Your task to perform on an android device: Show me the alarms in the clock app Image 0: 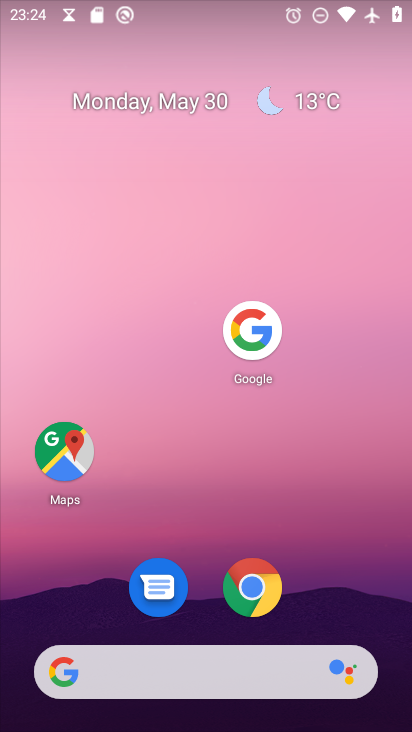
Step 0: press home button
Your task to perform on an android device: Show me the alarms in the clock app Image 1: 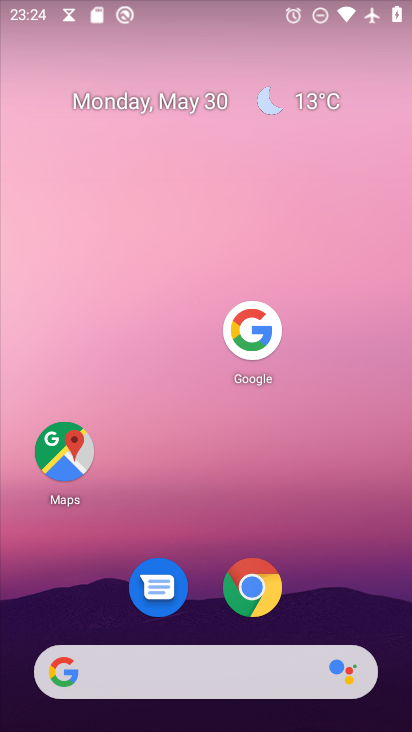
Step 1: drag from (203, 670) to (289, 171)
Your task to perform on an android device: Show me the alarms in the clock app Image 2: 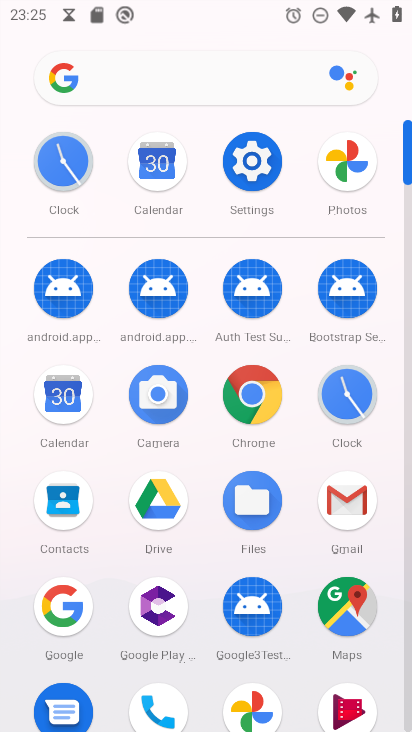
Step 2: click (351, 392)
Your task to perform on an android device: Show me the alarms in the clock app Image 3: 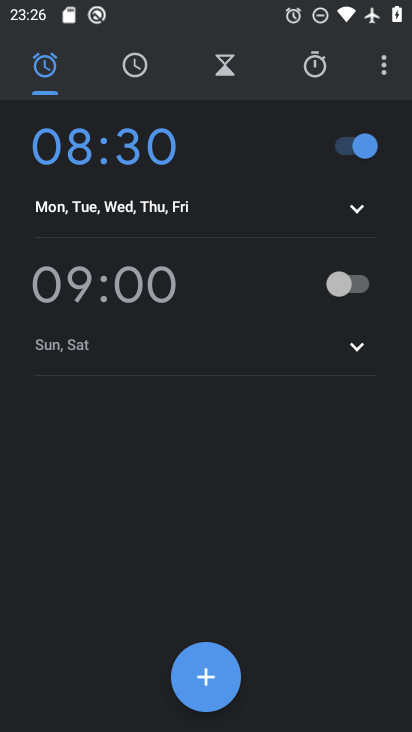
Step 3: task complete